Your task to perform on an android device: What is the news today? Image 0: 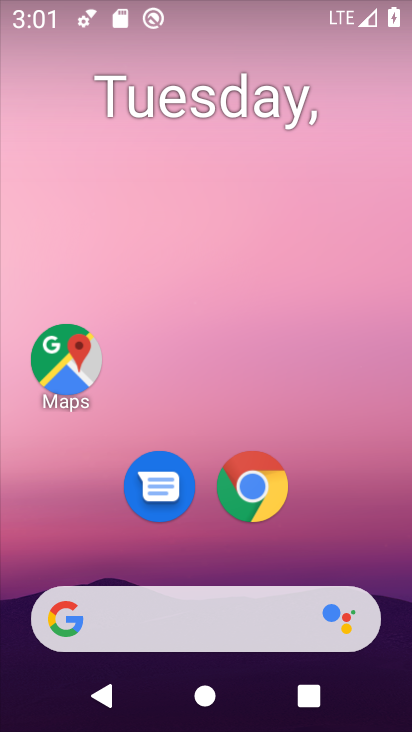
Step 0: drag from (6, 238) to (351, 273)
Your task to perform on an android device: What is the news today? Image 1: 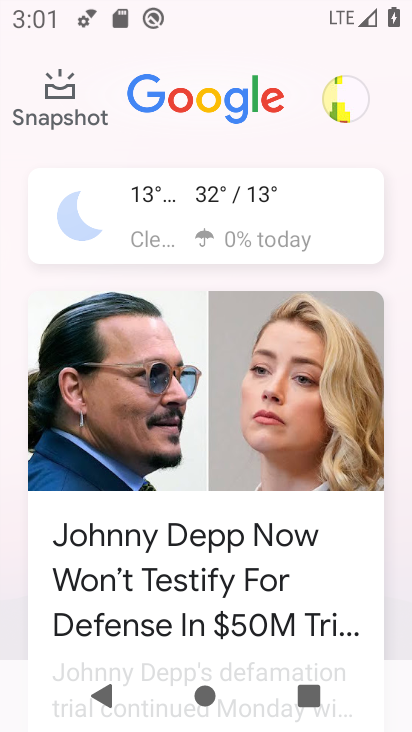
Step 1: task complete